Your task to perform on an android device: Open notification settings Image 0: 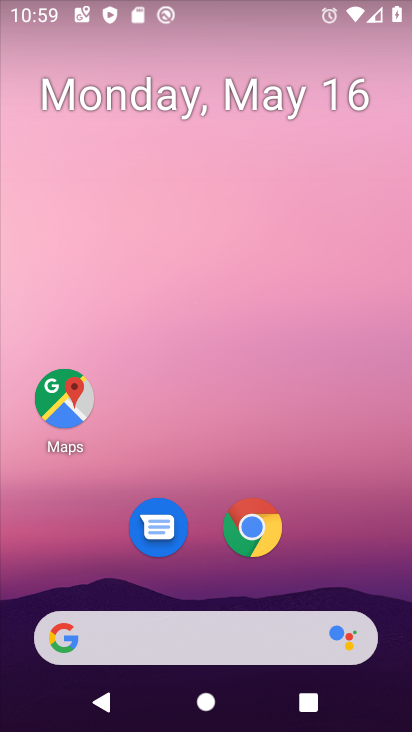
Step 0: drag from (346, 573) to (325, 27)
Your task to perform on an android device: Open notification settings Image 1: 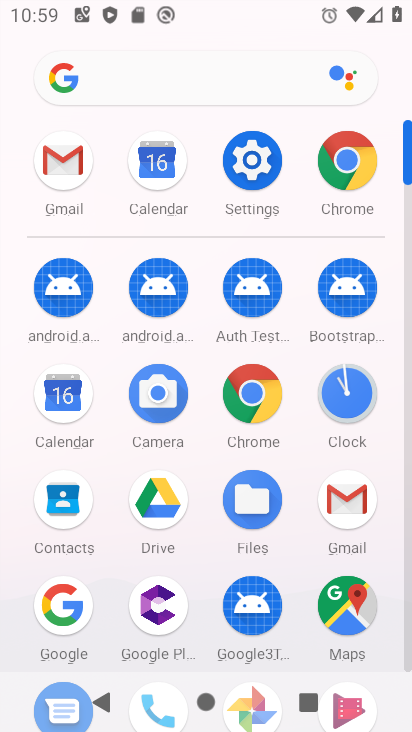
Step 1: click (254, 168)
Your task to perform on an android device: Open notification settings Image 2: 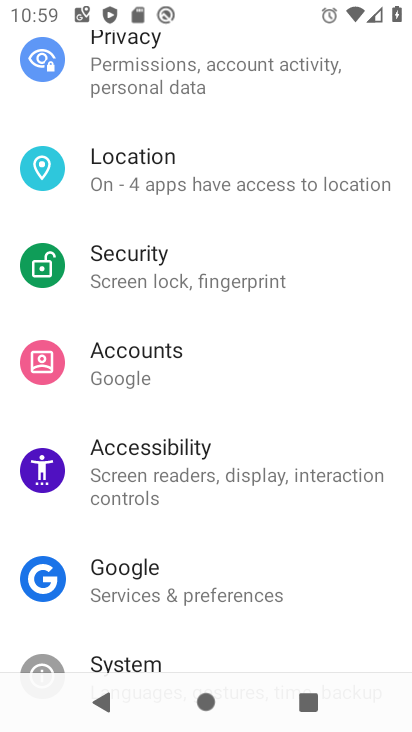
Step 2: drag from (252, 194) to (257, 487)
Your task to perform on an android device: Open notification settings Image 3: 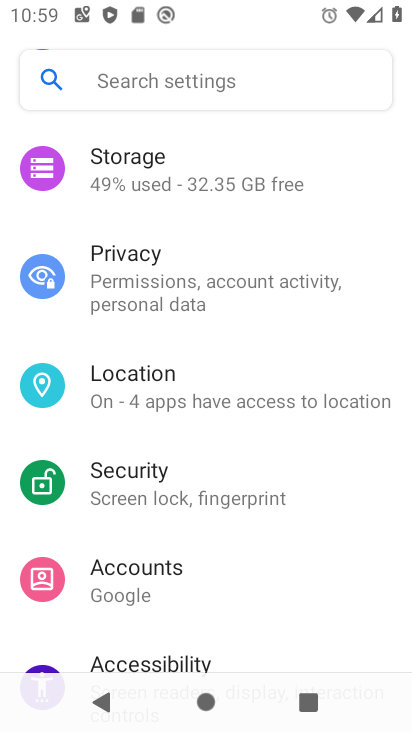
Step 3: drag from (248, 201) to (243, 559)
Your task to perform on an android device: Open notification settings Image 4: 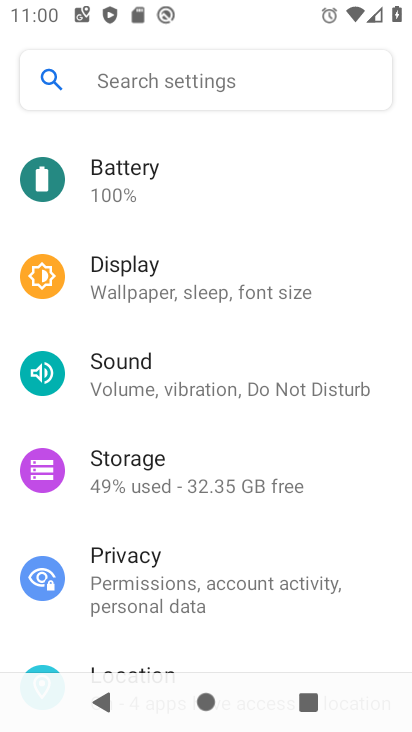
Step 4: drag from (279, 268) to (285, 547)
Your task to perform on an android device: Open notification settings Image 5: 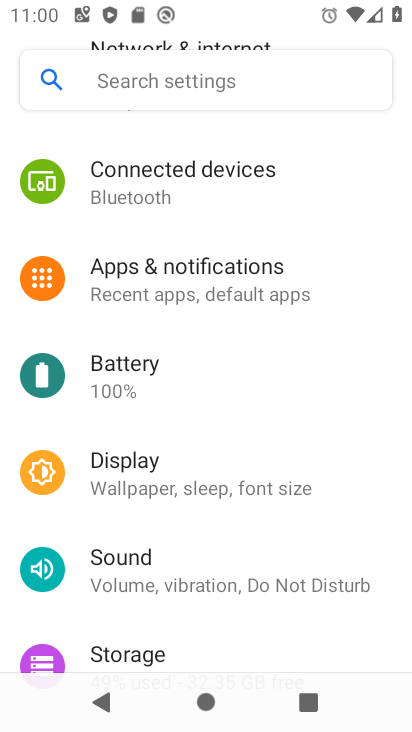
Step 5: click (200, 293)
Your task to perform on an android device: Open notification settings Image 6: 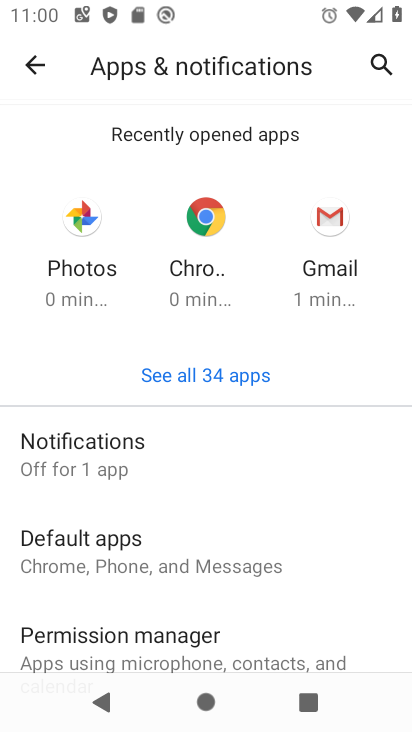
Step 6: task complete